Your task to perform on an android device: search for starred emails in the gmail app Image 0: 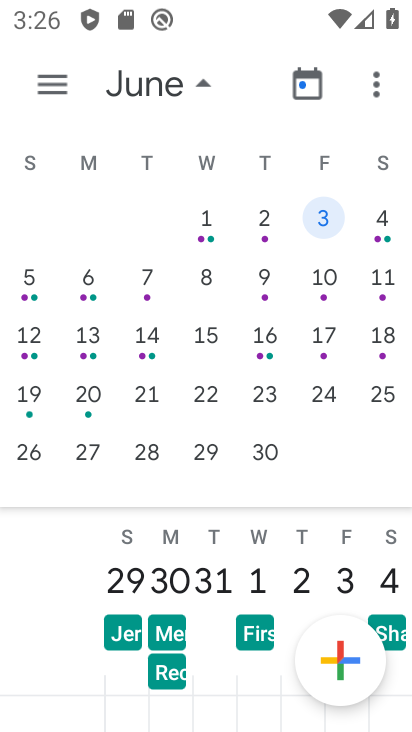
Step 0: press home button
Your task to perform on an android device: search for starred emails in the gmail app Image 1: 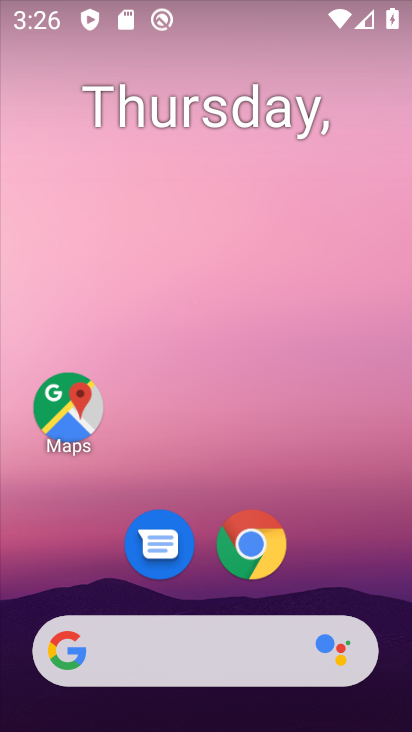
Step 1: drag from (334, 177) to (353, 19)
Your task to perform on an android device: search for starred emails in the gmail app Image 2: 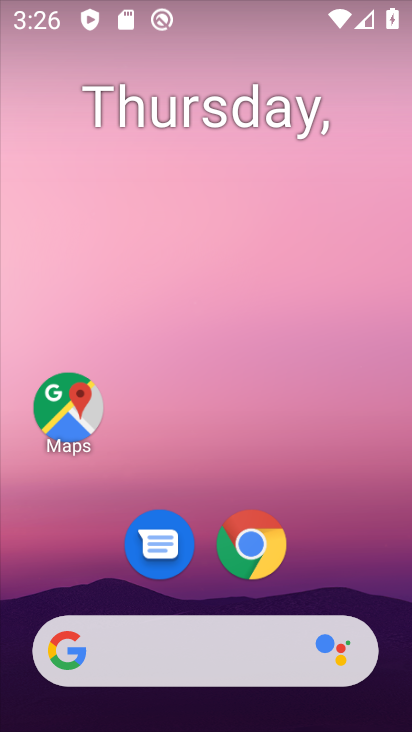
Step 2: drag from (318, 570) to (295, 99)
Your task to perform on an android device: search for starred emails in the gmail app Image 3: 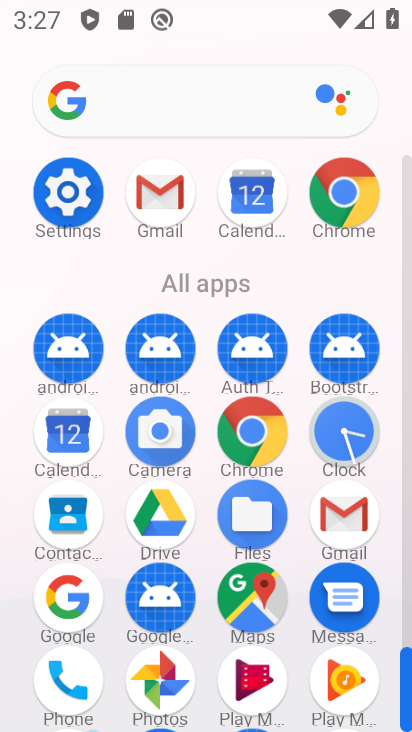
Step 3: click (351, 528)
Your task to perform on an android device: search for starred emails in the gmail app Image 4: 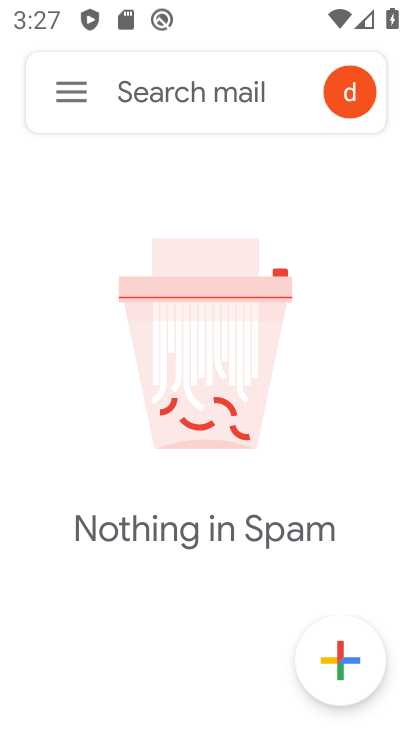
Step 4: click (64, 90)
Your task to perform on an android device: search for starred emails in the gmail app Image 5: 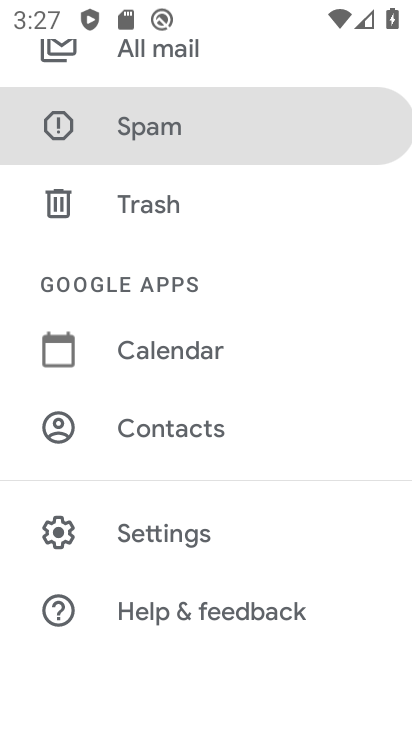
Step 5: drag from (135, 202) to (159, 623)
Your task to perform on an android device: search for starred emails in the gmail app Image 6: 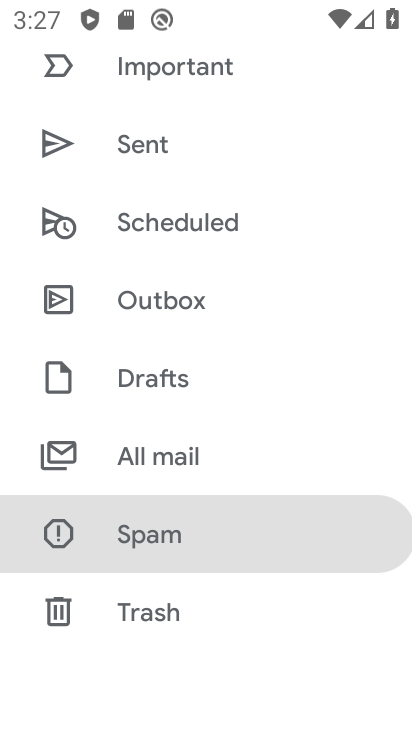
Step 6: drag from (163, 329) to (176, 721)
Your task to perform on an android device: search for starred emails in the gmail app Image 7: 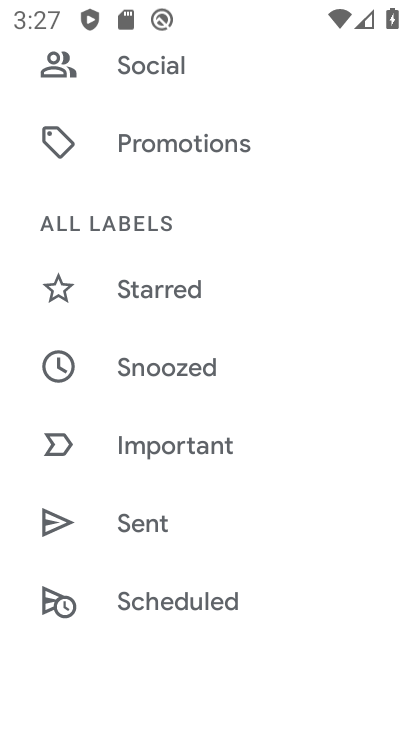
Step 7: click (186, 276)
Your task to perform on an android device: search for starred emails in the gmail app Image 8: 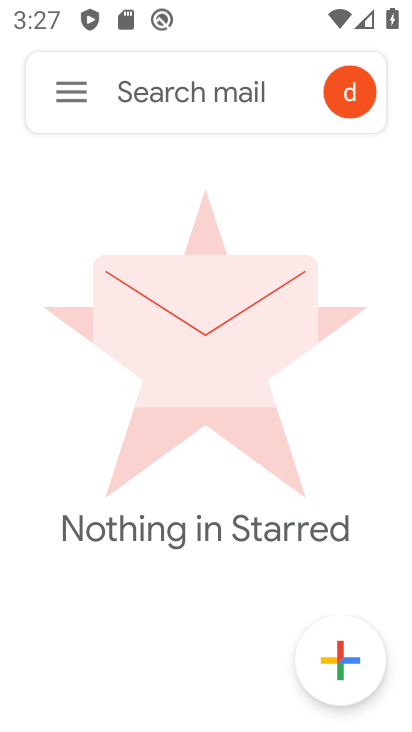
Step 8: task complete